Your task to perform on an android device: turn off notifications in google photos Image 0: 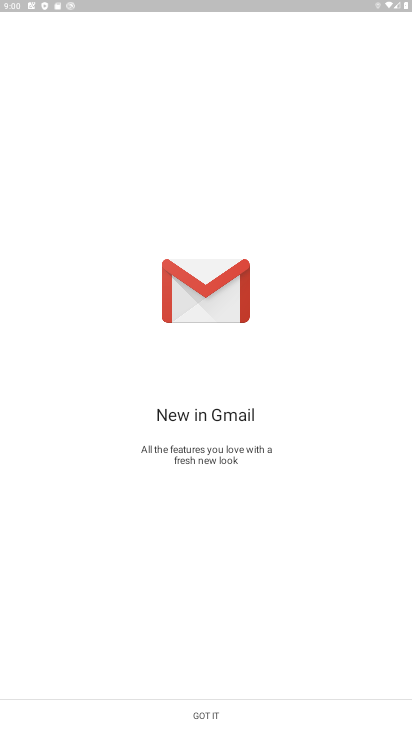
Step 0: click (217, 716)
Your task to perform on an android device: turn off notifications in google photos Image 1: 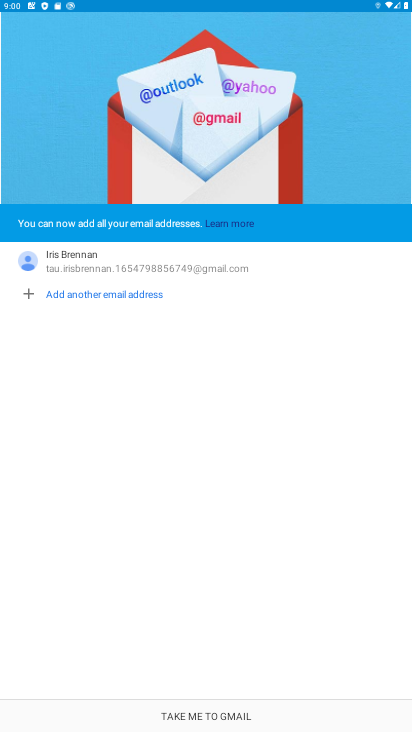
Step 1: press home button
Your task to perform on an android device: turn off notifications in google photos Image 2: 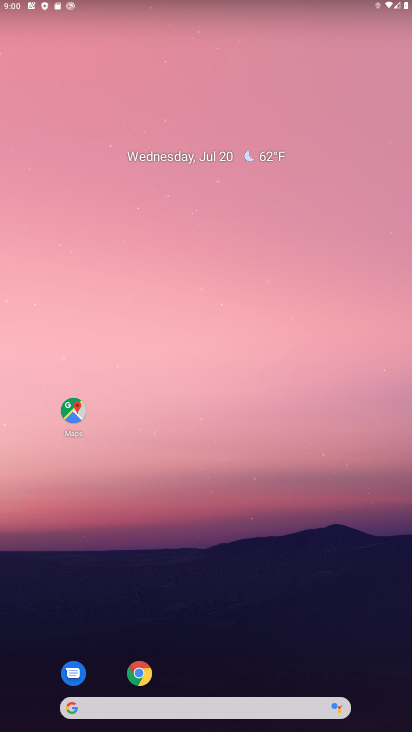
Step 2: drag from (393, 656) to (368, 73)
Your task to perform on an android device: turn off notifications in google photos Image 3: 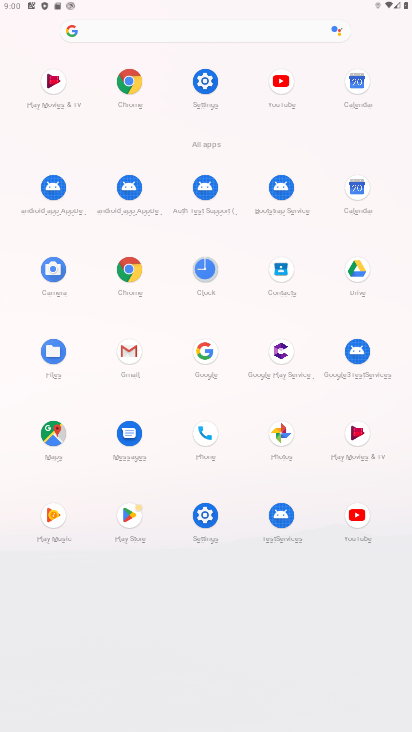
Step 3: click (273, 430)
Your task to perform on an android device: turn off notifications in google photos Image 4: 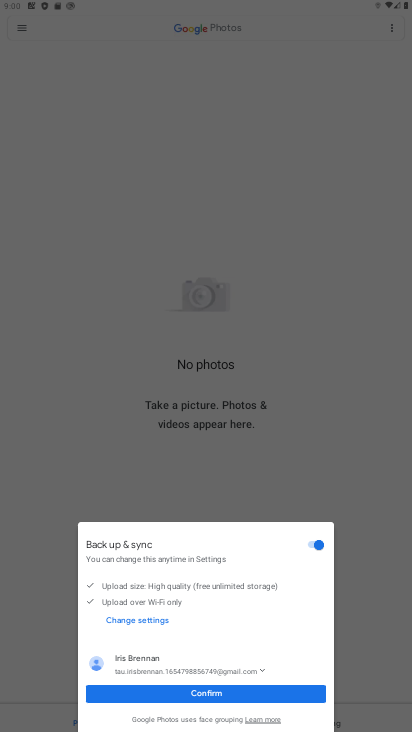
Step 4: click (212, 696)
Your task to perform on an android device: turn off notifications in google photos Image 5: 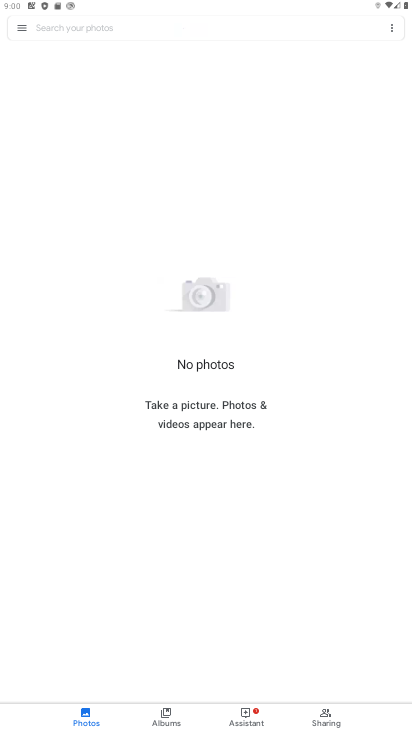
Step 5: click (24, 26)
Your task to perform on an android device: turn off notifications in google photos Image 6: 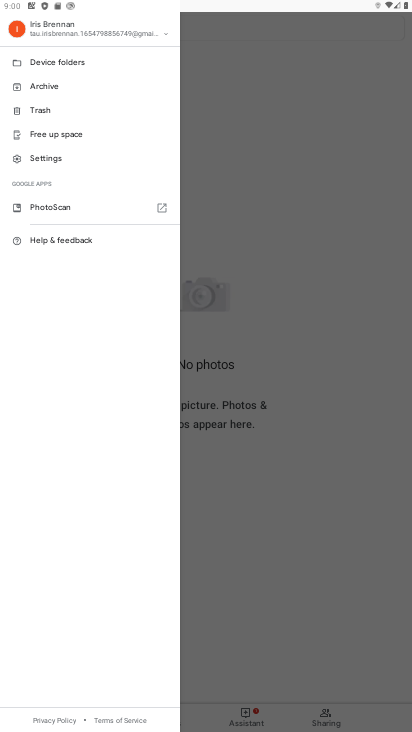
Step 6: click (34, 152)
Your task to perform on an android device: turn off notifications in google photos Image 7: 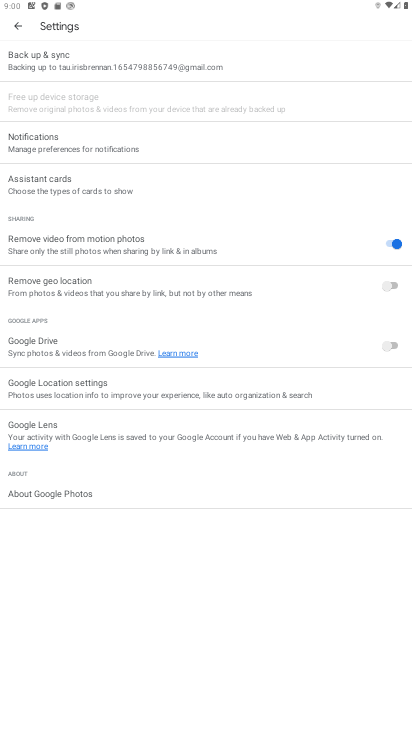
Step 7: click (42, 141)
Your task to perform on an android device: turn off notifications in google photos Image 8: 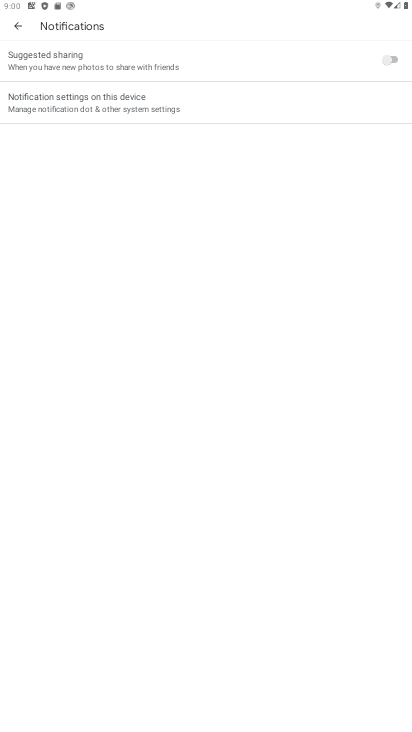
Step 8: click (95, 109)
Your task to perform on an android device: turn off notifications in google photos Image 9: 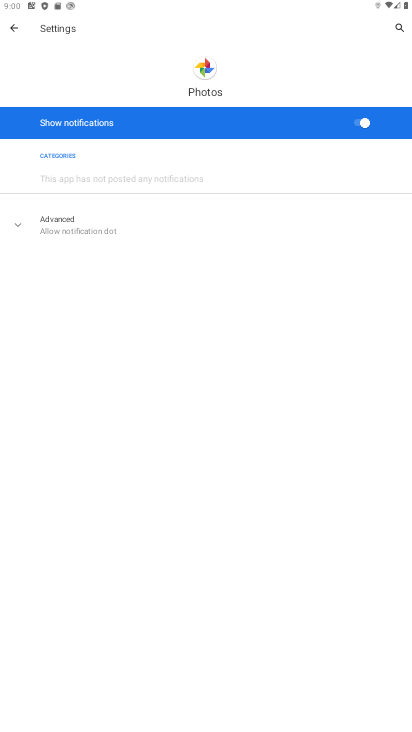
Step 9: click (357, 129)
Your task to perform on an android device: turn off notifications in google photos Image 10: 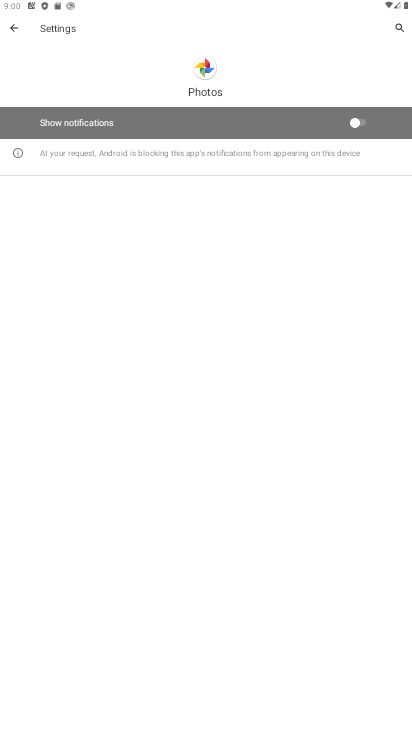
Step 10: task complete